Your task to perform on an android device: search for starred emails in the gmail app Image 0: 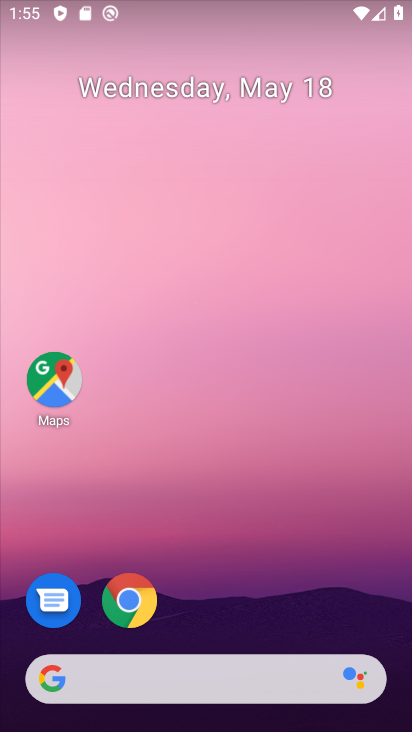
Step 0: drag from (154, 656) to (288, 104)
Your task to perform on an android device: search for starred emails in the gmail app Image 1: 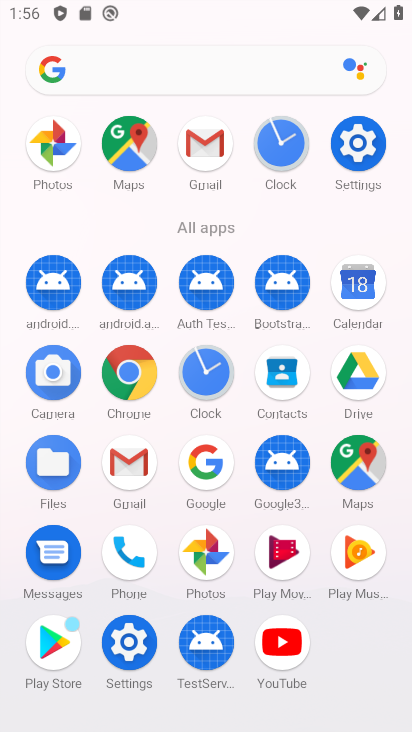
Step 1: click (132, 477)
Your task to perform on an android device: search for starred emails in the gmail app Image 2: 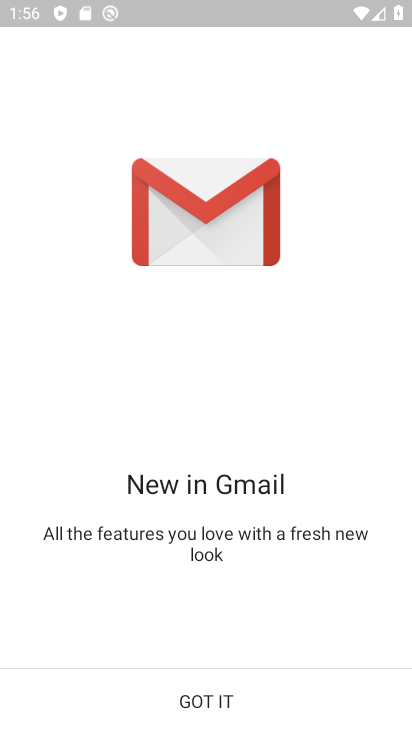
Step 2: click (194, 706)
Your task to perform on an android device: search for starred emails in the gmail app Image 3: 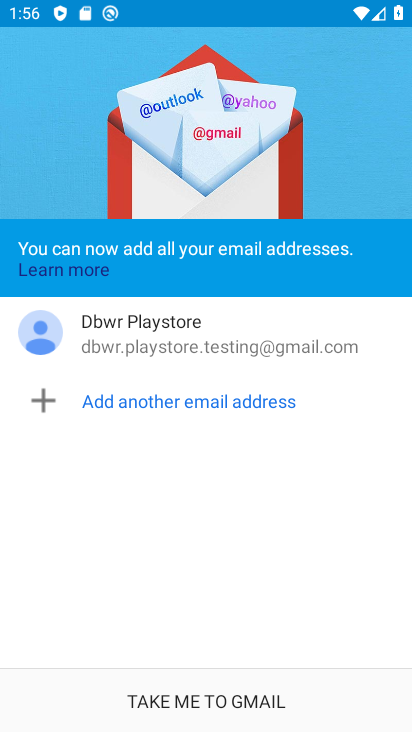
Step 3: click (191, 706)
Your task to perform on an android device: search for starred emails in the gmail app Image 4: 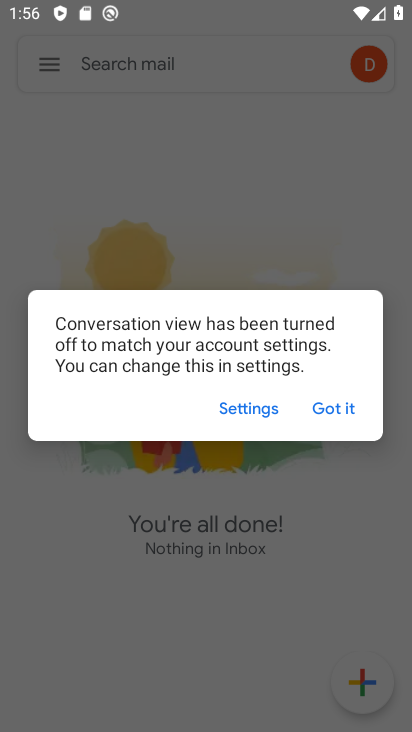
Step 4: click (330, 412)
Your task to perform on an android device: search for starred emails in the gmail app Image 5: 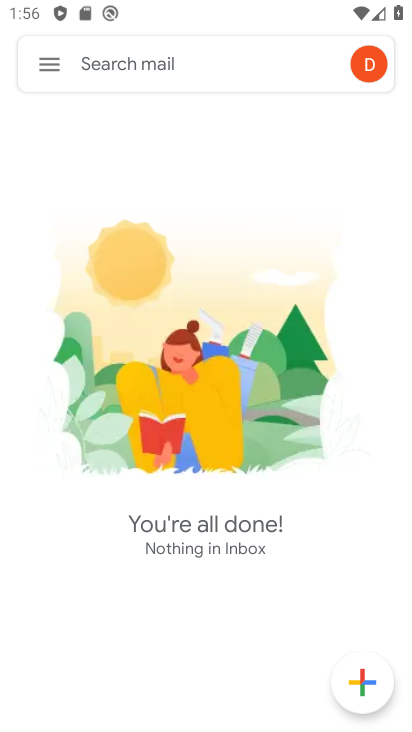
Step 5: click (40, 68)
Your task to perform on an android device: search for starred emails in the gmail app Image 6: 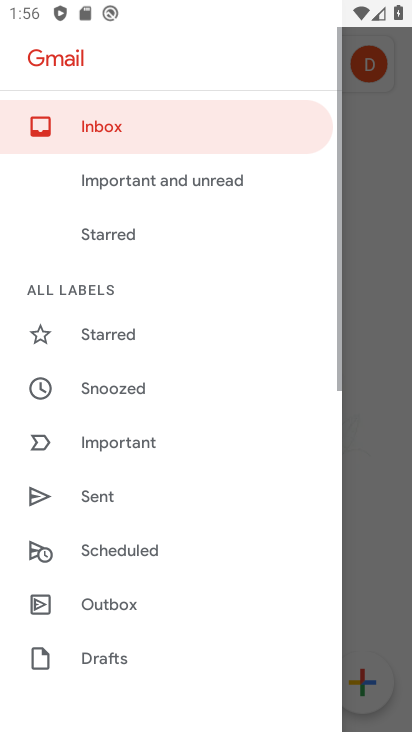
Step 6: click (141, 338)
Your task to perform on an android device: search for starred emails in the gmail app Image 7: 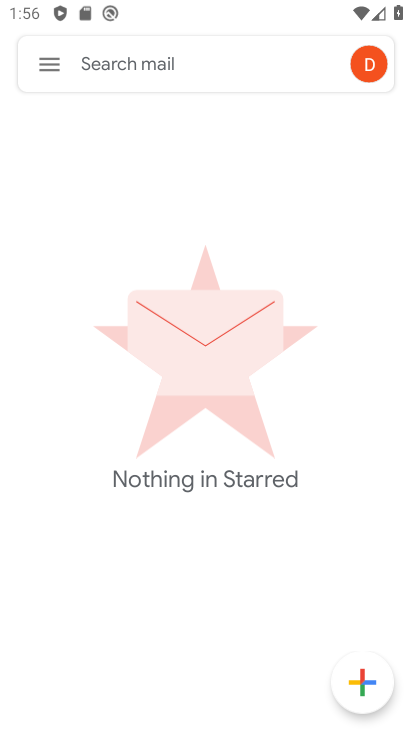
Step 7: task complete